Your task to perform on an android device: check the backup settings in the google photos Image 0: 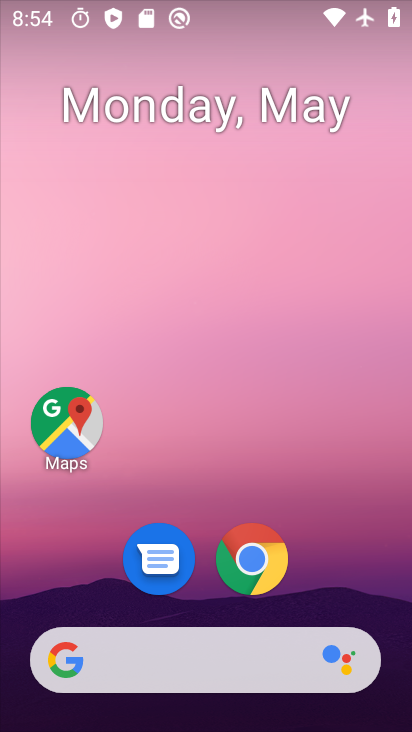
Step 0: drag from (310, 608) to (330, 65)
Your task to perform on an android device: check the backup settings in the google photos Image 1: 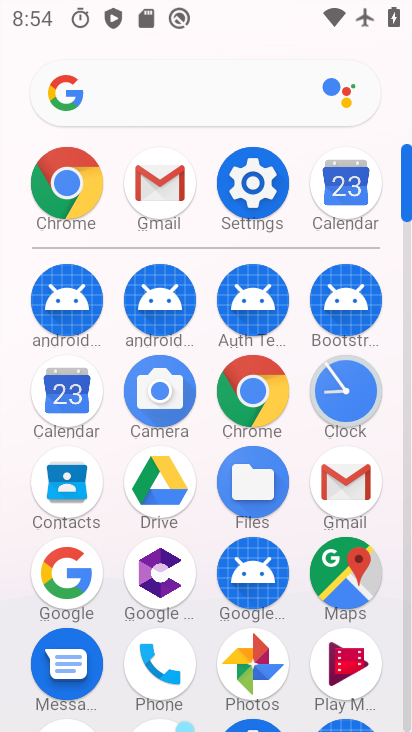
Step 1: click (247, 659)
Your task to perform on an android device: check the backup settings in the google photos Image 2: 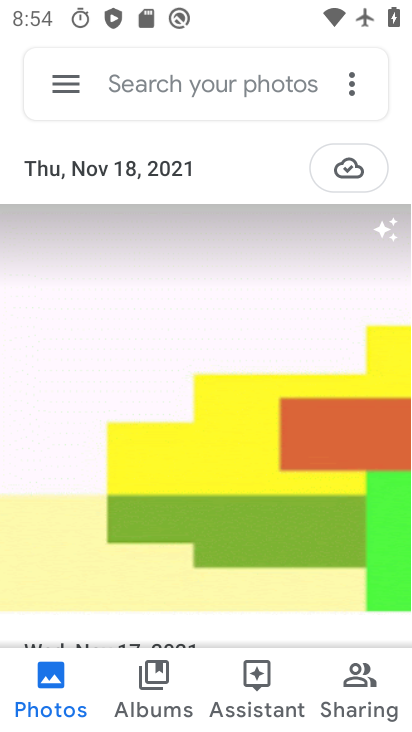
Step 2: click (50, 84)
Your task to perform on an android device: check the backup settings in the google photos Image 3: 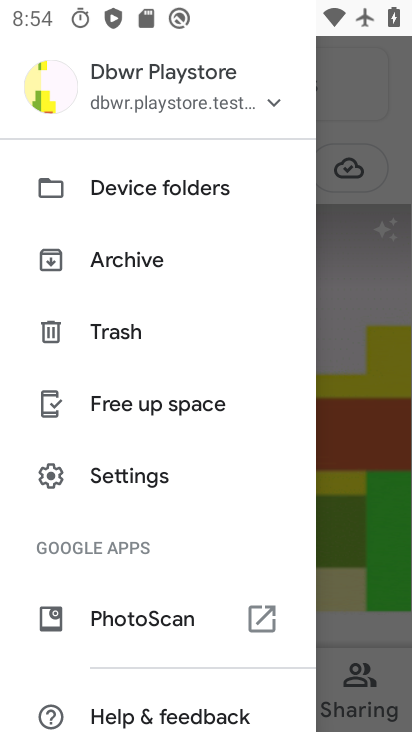
Step 3: click (108, 484)
Your task to perform on an android device: check the backup settings in the google photos Image 4: 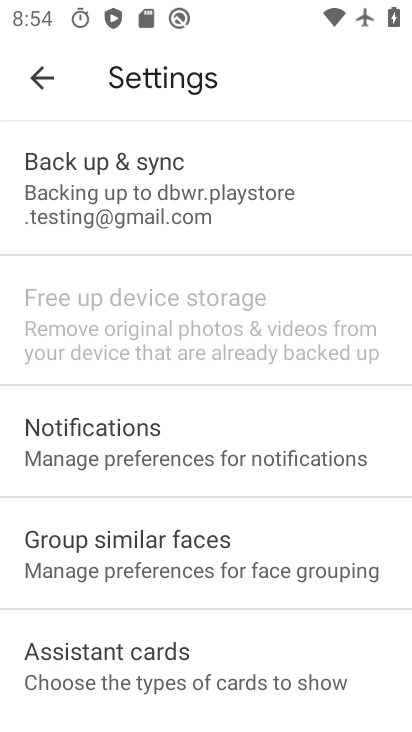
Step 4: click (98, 167)
Your task to perform on an android device: check the backup settings in the google photos Image 5: 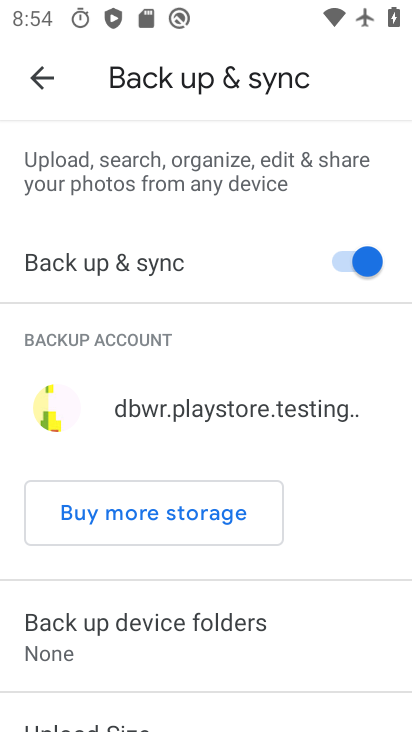
Step 5: task complete